Your task to perform on an android device: turn smart compose on in the gmail app Image 0: 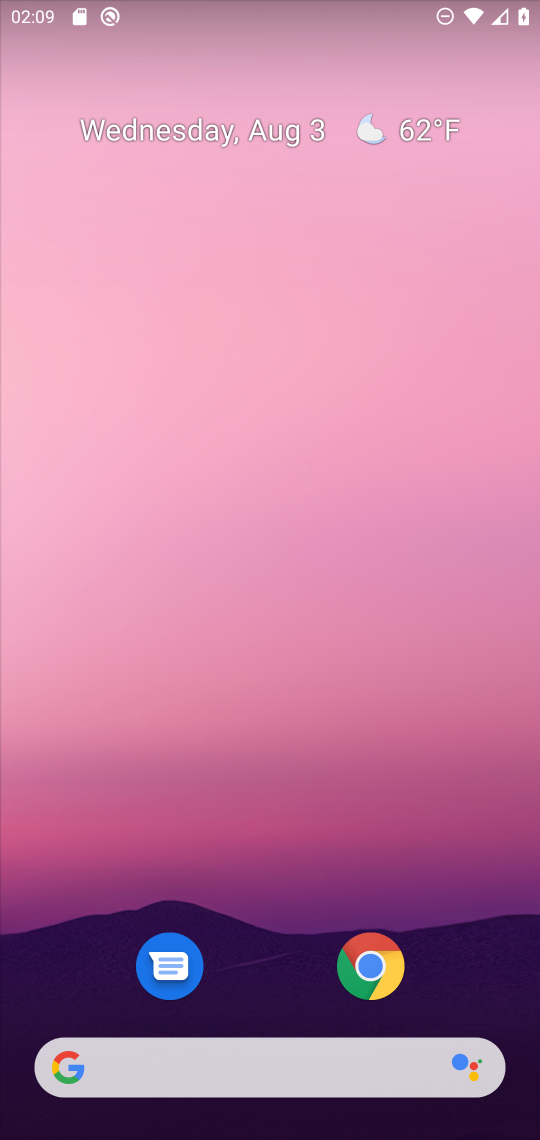
Step 0: drag from (265, 1001) to (284, 396)
Your task to perform on an android device: turn smart compose on in the gmail app Image 1: 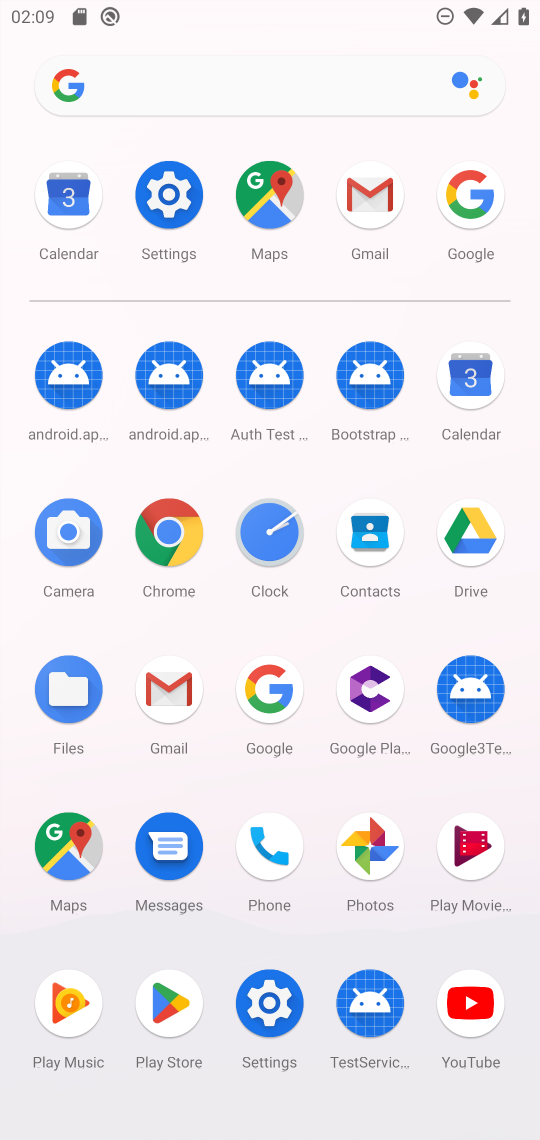
Step 1: click (390, 215)
Your task to perform on an android device: turn smart compose on in the gmail app Image 2: 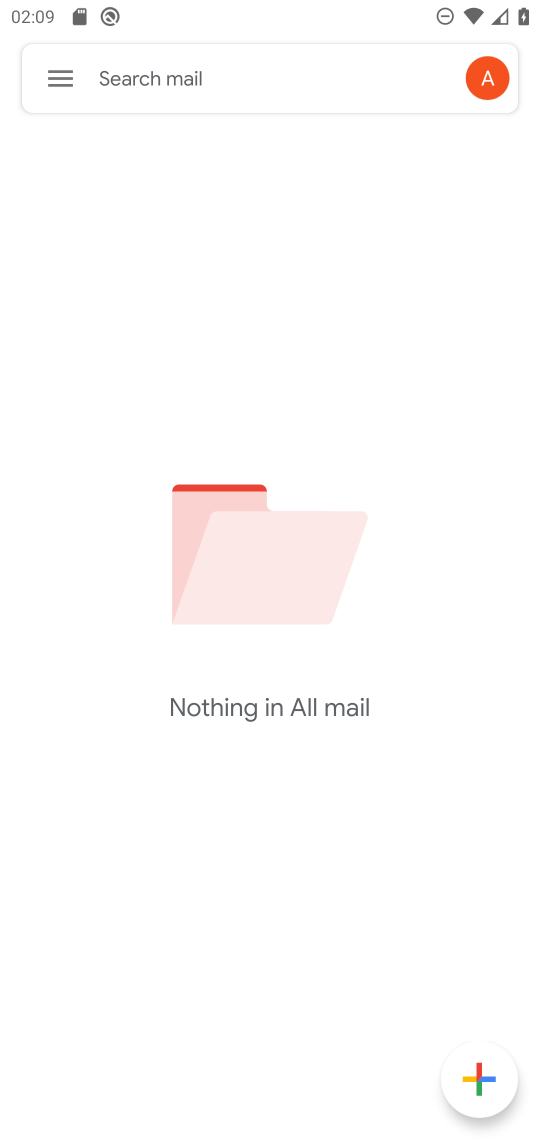
Step 2: click (45, 86)
Your task to perform on an android device: turn smart compose on in the gmail app Image 3: 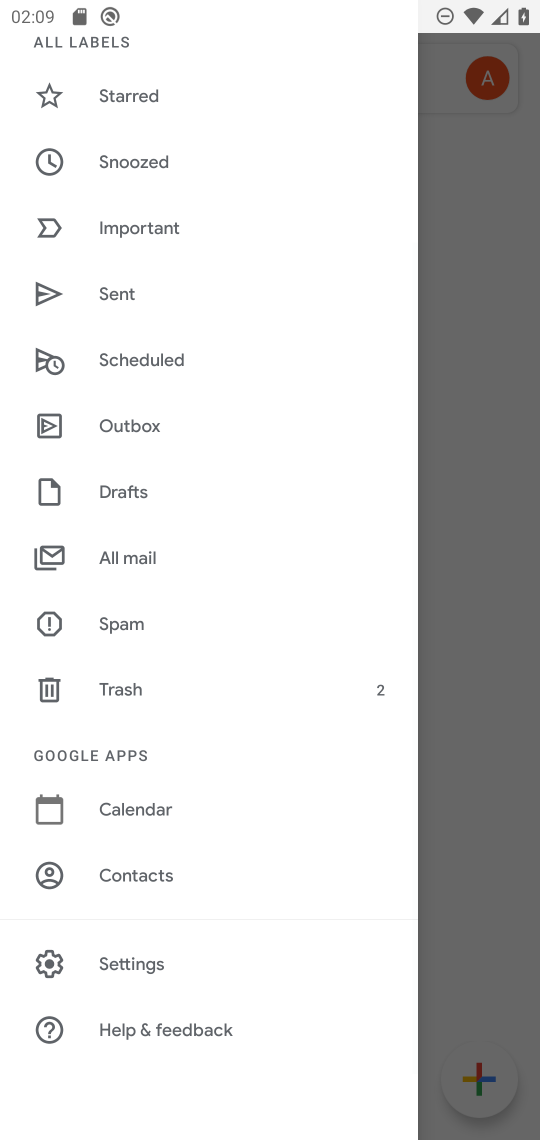
Step 3: click (183, 960)
Your task to perform on an android device: turn smart compose on in the gmail app Image 4: 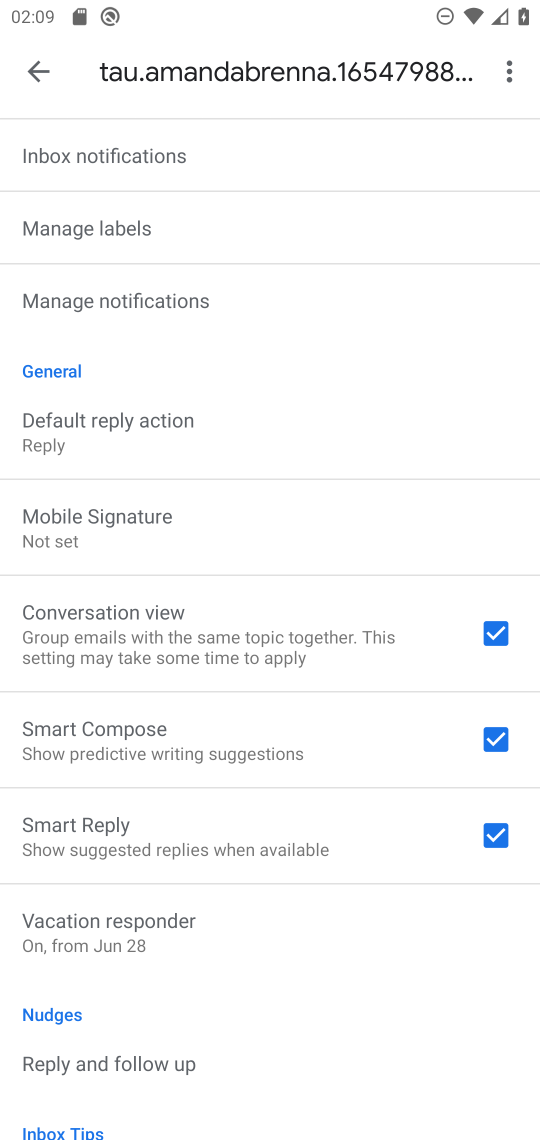
Step 4: task complete